Your task to perform on an android device: Go to ESPN.com Image 0: 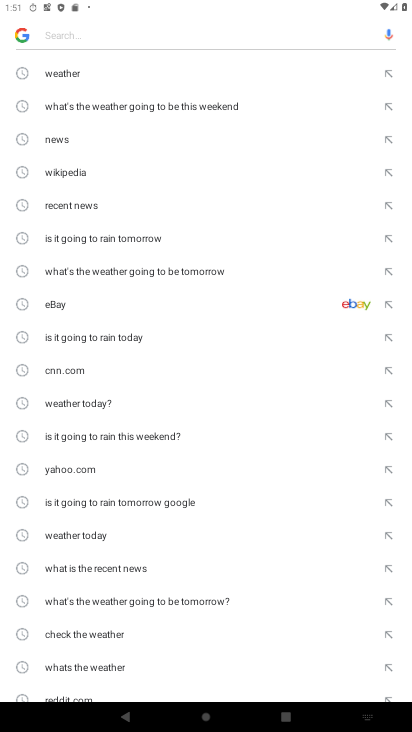
Step 0: type "ESPN.com"
Your task to perform on an android device: Go to ESPN.com Image 1: 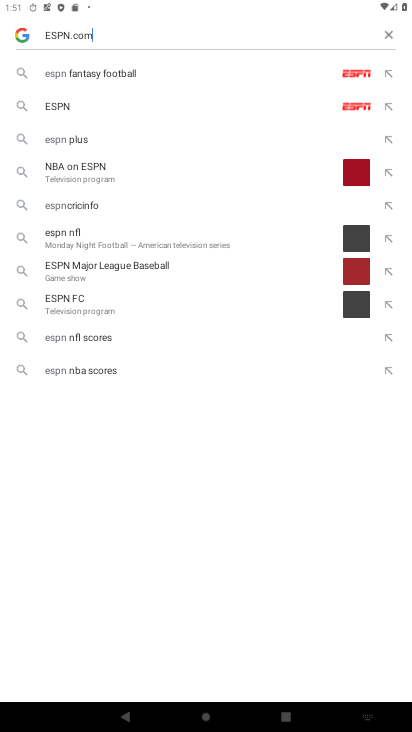
Step 1: type ""
Your task to perform on an android device: Go to ESPN.com Image 2: 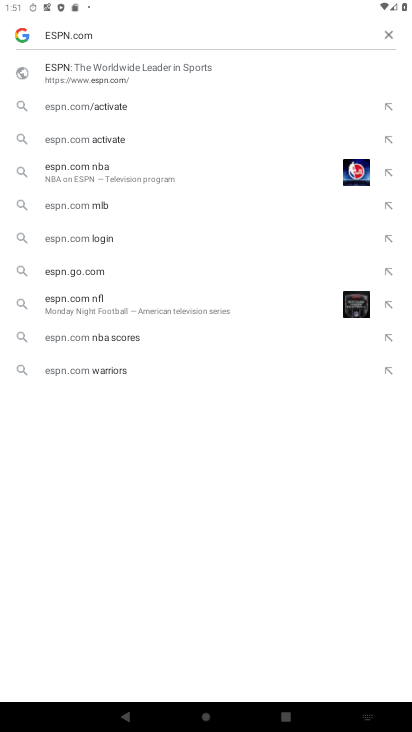
Step 2: click (57, 76)
Your task to perform on an android device: Go to ESPN.com Image 3: 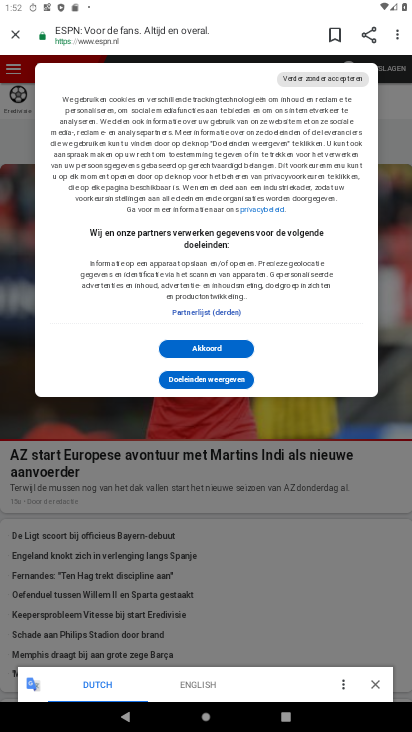
Step 3: task complete